Your task to perform on an android device: Go to privacy settings Image 0: 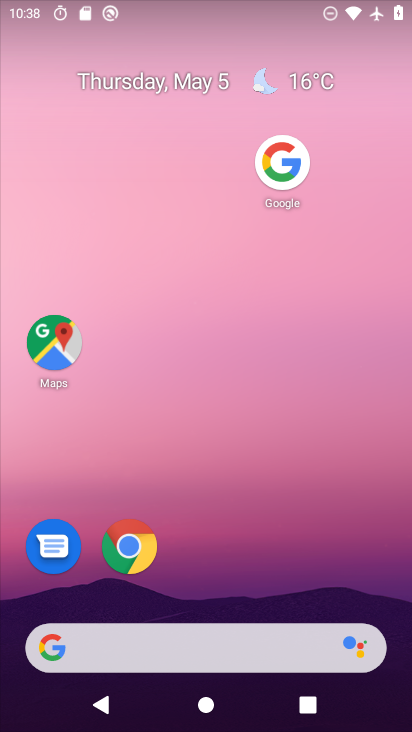
Step 0: drag from (179, 643) to (305, 66)
Your task to perform on an android device: Go to privacy settings Image 1: 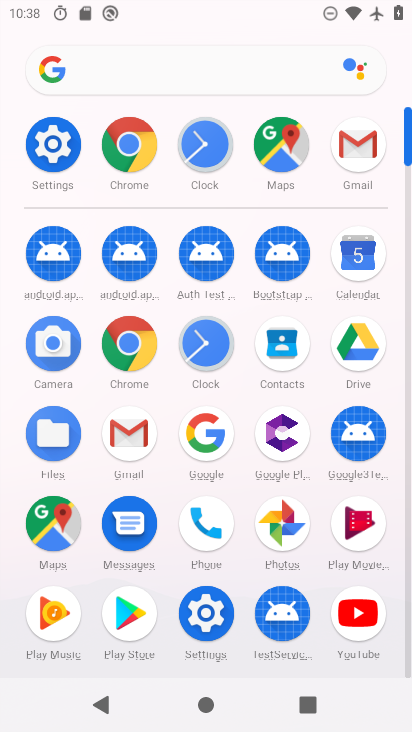
Step 1: click (59, 155)
Your task to perform on an android device: Go to privacy settings Image 2: 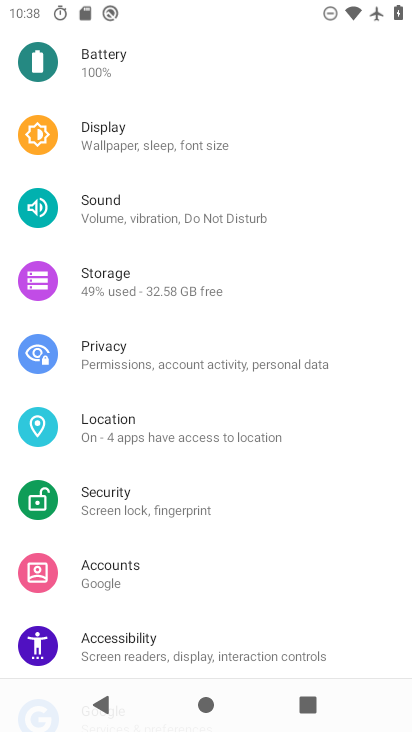
Step 2: click (116, 345)
Your task to perform on an android device: Go to privacy settings Image 3: 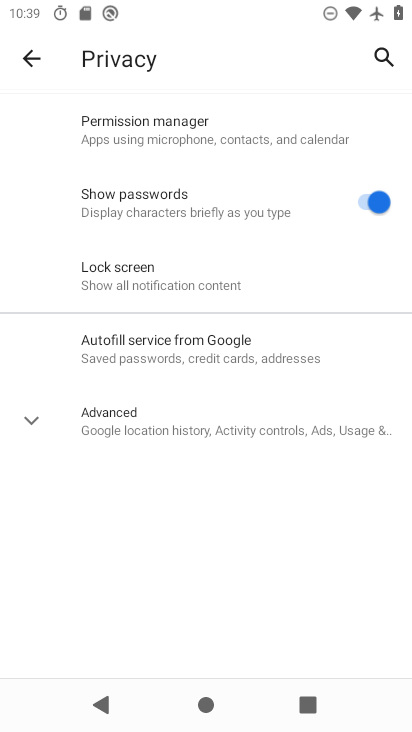
Step 3: task complete